Your task to perform on an android device: turn on javascript in the chrome app Image 0: 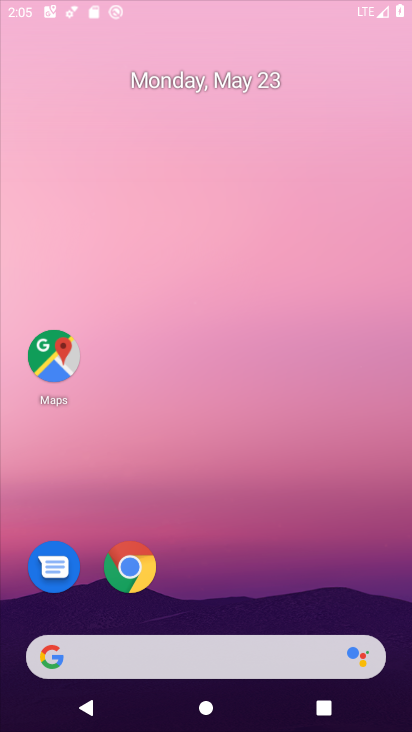
Step 0: drag from (275, 580) to (302, 200)
Your task to perform on an android device: turn on javascript in the chrome app Image 1: 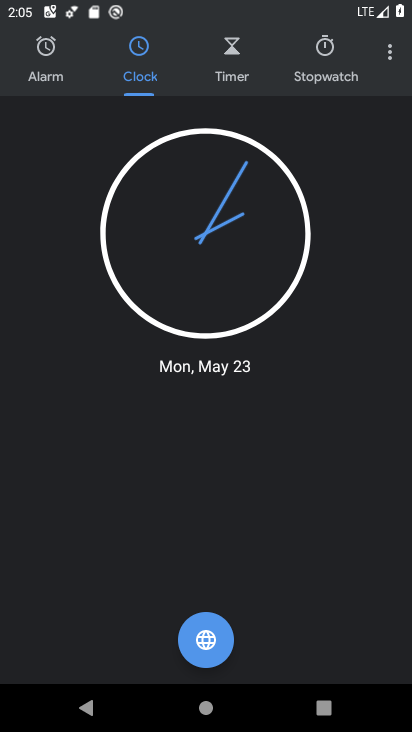
Step 1: press home button
Your task to perform on an android device: turn on javascript in the chrome app Image 2: 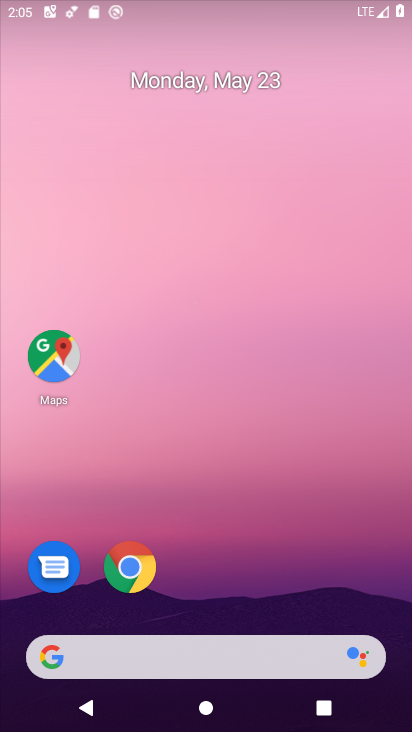
Step 2: drag from (167, 568) to (239, 224)
Your task to perform on an android device: turn on javascript in the chrome app Image 3: 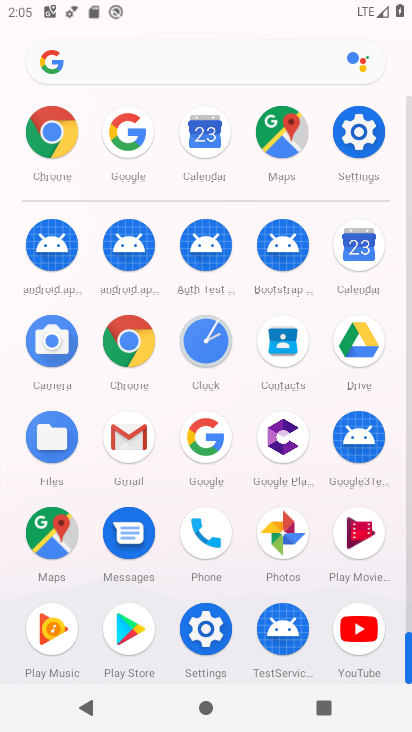
Step 3: click (134, 357)
Your task to perform on an android device: turn on javascript in the chrome app Image 4: 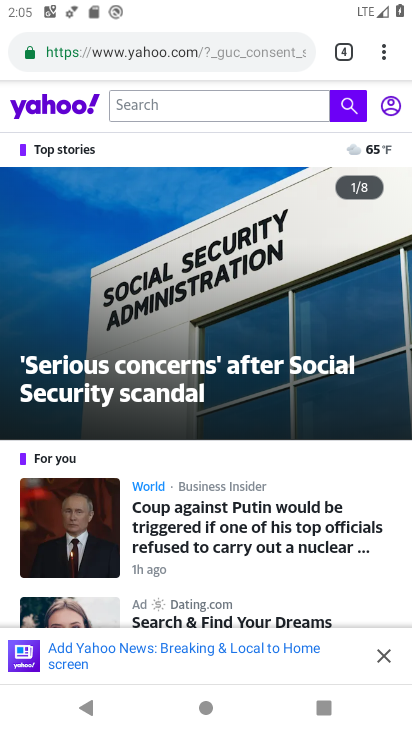
Step 4: click (375, 52)
Your task to perform on an android device: turn on javascript in the chrome app Image 5: 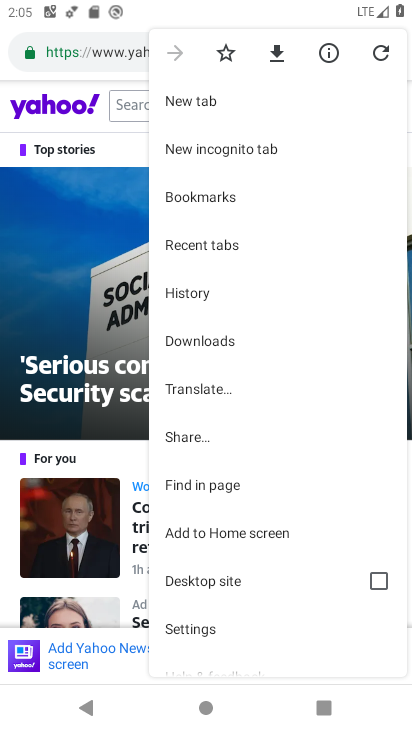
Step 5: click (221, 632)
Your task to perform on an android device: turn on javascript in the chrome app Image 6: 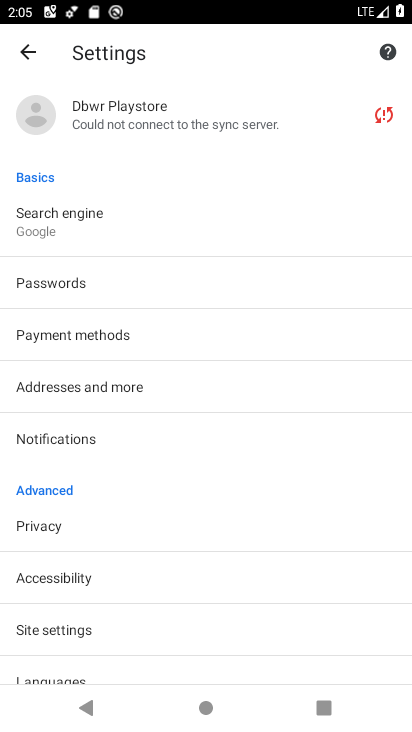
Step 6: click (196, 625)
Your task to perform on an android device: turn on javascript in the chrome app Image 7: 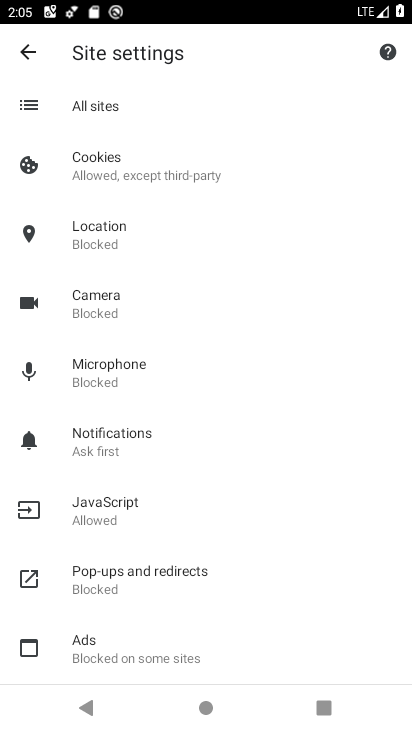
Step 7: click (192, 522)
Your task to perform on an android device: turn on javascript in the chrome app Image 8: 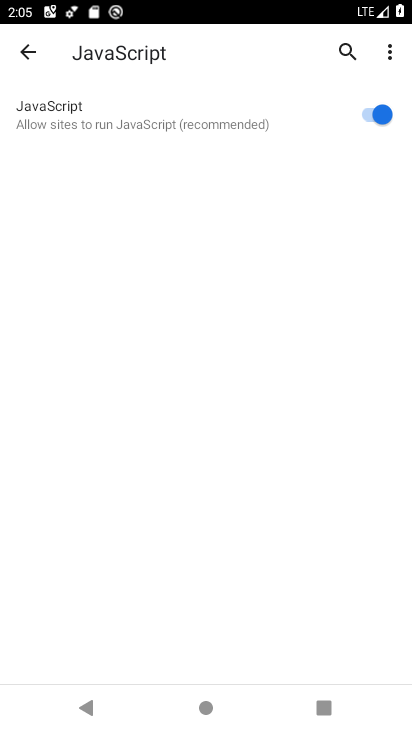
Step 8: task complete